Your task to perform on an android device: Open calendar and show me the third week of next month Image 0: 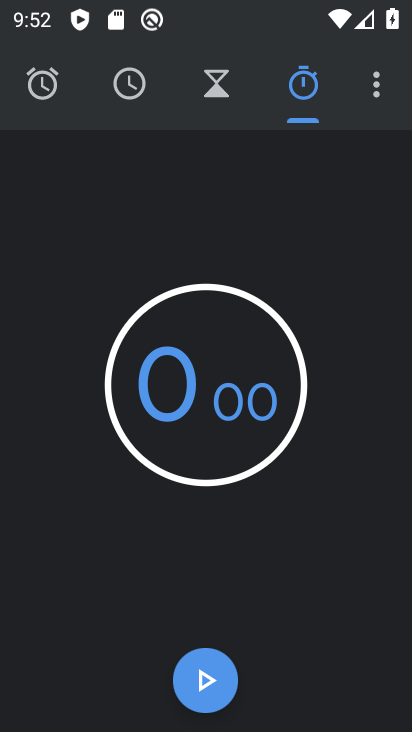
Step 0: task complete